Your task to perform on an android device: change alarm snooze length Image 0: 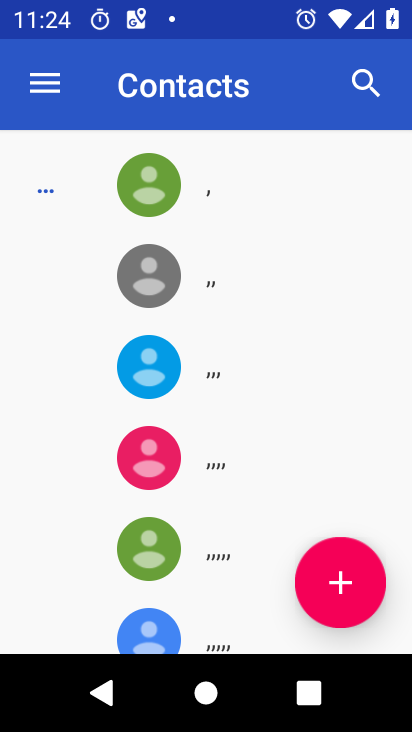
Step 0: press back button
Your task to perform on an android device: change alarm snooze length Image 1: 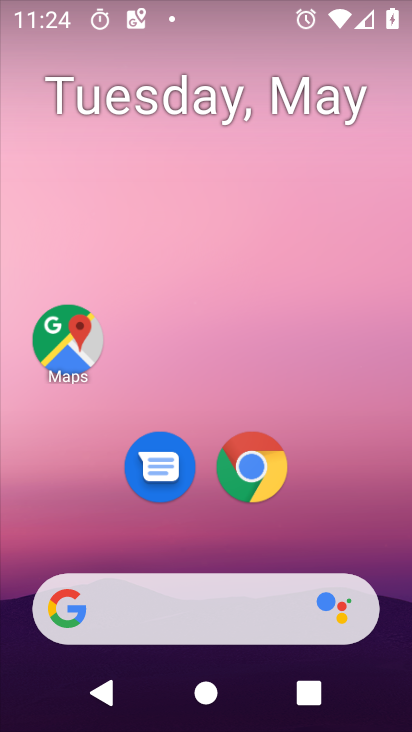
Step 1: drag from (400, 611) to (281, 74)
Your task to perform on an android device: change alarm snooze length Image 2: 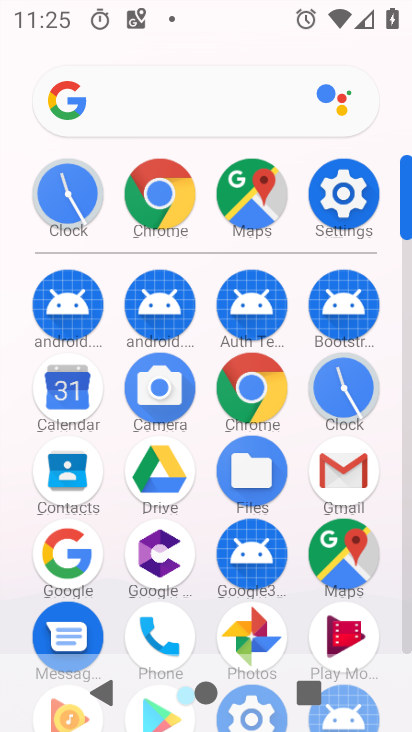
Step 2: drag from (3, 576) to (0, 201)
Your task to perform on an android device: change alarm snooze length Image 3: 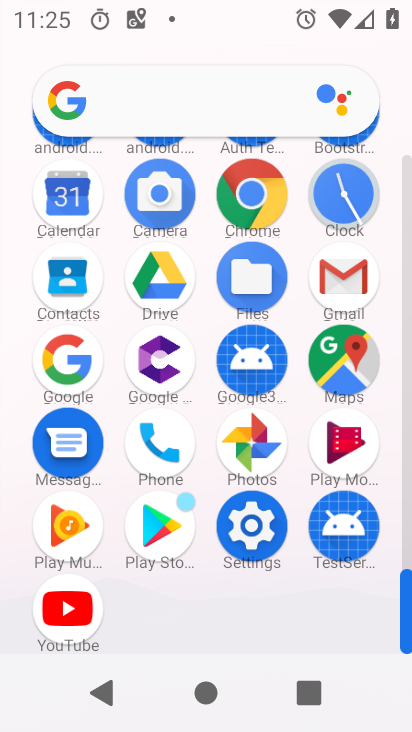
Step 3: click (345, 188)
Your task to perform on an android device: change alarm snooze length Image 4: 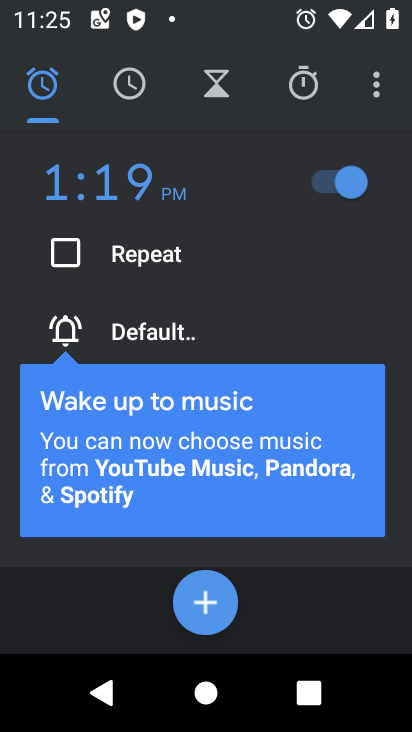
Step 4: drag from (371, 89) to (257, 166)
Your task to perform on an android device: change alarm snooze length Image 5: 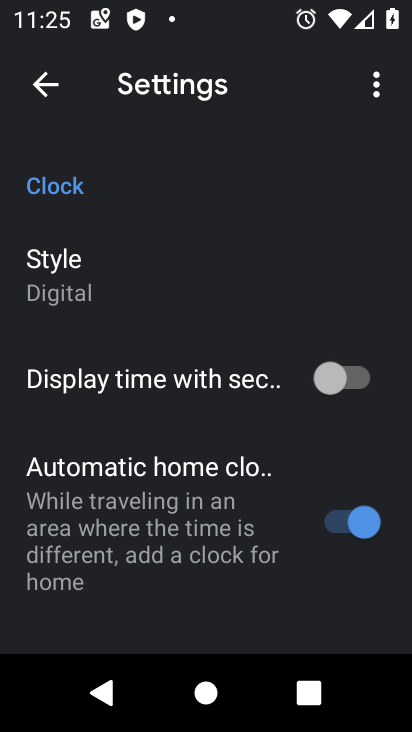
Step 5: drag from (161, 545) to (156, 179)
Your task to perform on an android device: change alarm snooze length Image 6: 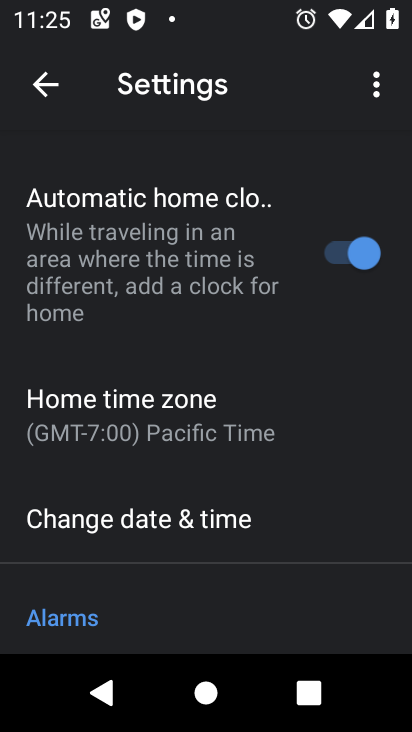
Step 6: drag from (175, 570) to (178, 128)
Your task to perform on an android device: change alarm snooze length Image 7: 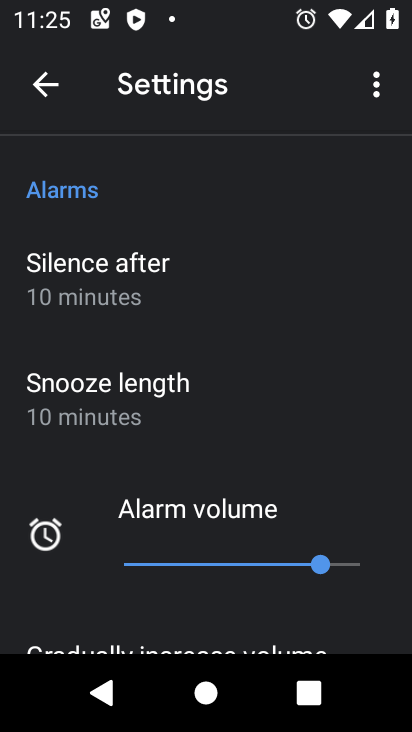
Step 7: click (157, 397)
Your task to perform on an android device: change alarm snooze length Image 8: 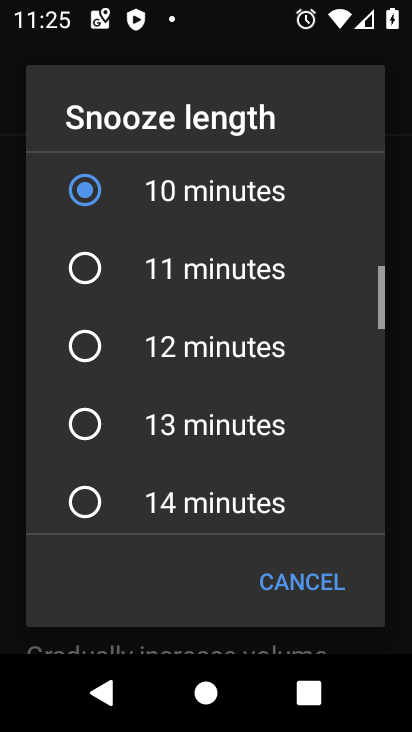
Step 8: click (160, 292)
Your task to perform on an android device: change alarm snooze length Image 9: 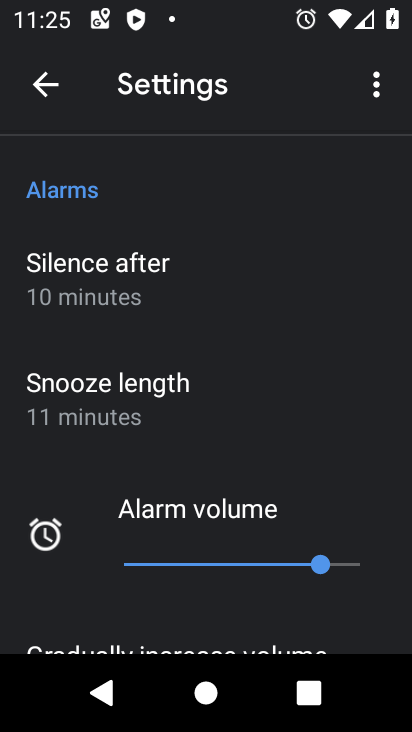
Step 9: task complete